Your task to perform on an android device: Open Wikipedia Image 0: 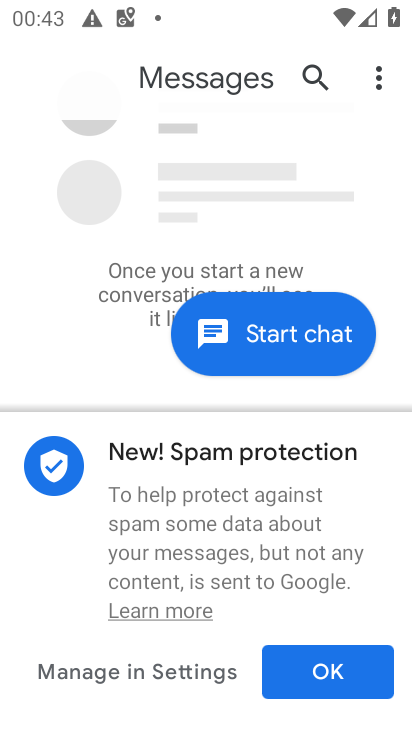
Step 0: press home button
Your task to perform on an android device: Open Wikipedia Image 1: 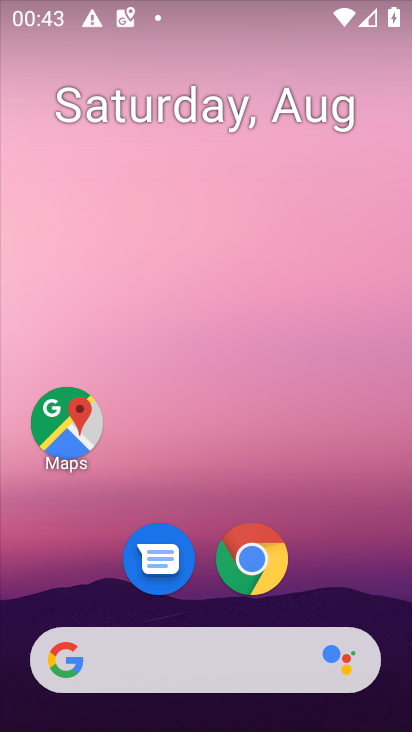
Step 1: click (267, 560)
Your task to perform on an android device: Open Wikipedia Image 2: 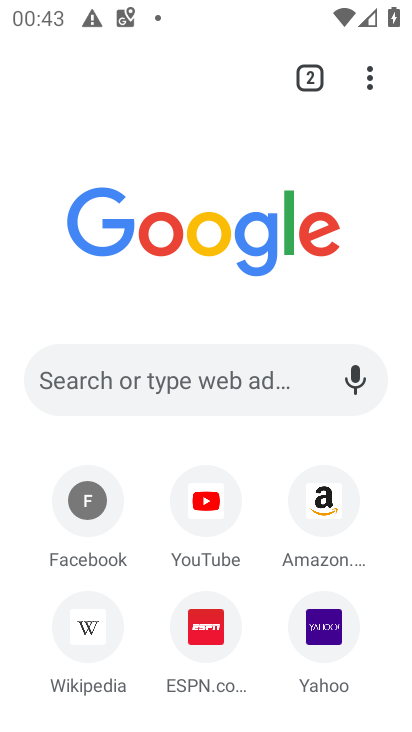
Step 2: click (92, 654)
Your task to perform on an android device: Open Wikipedia Image 3: 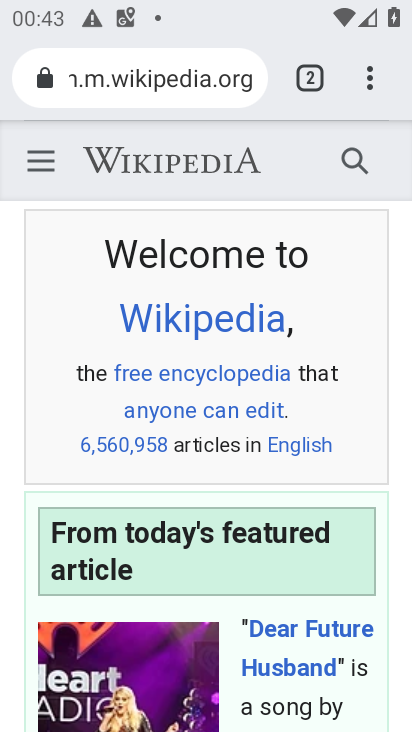
Step 3: task complete